Your task to perform on an android device: change the clock display to digital Image 0: 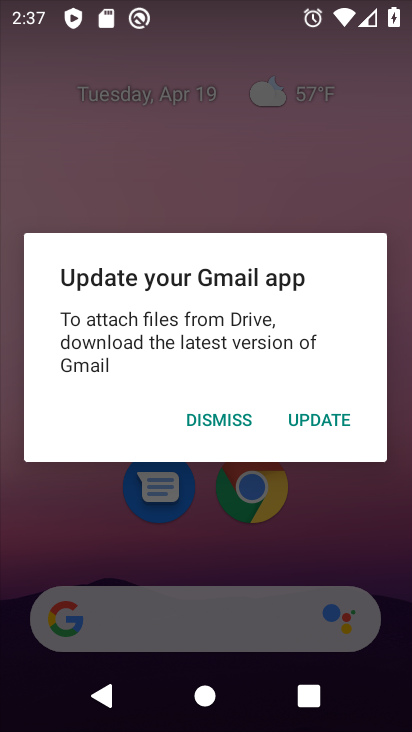
Step 0: press home button
Your task to perform on an android device: change the clock display to digital Image 1: 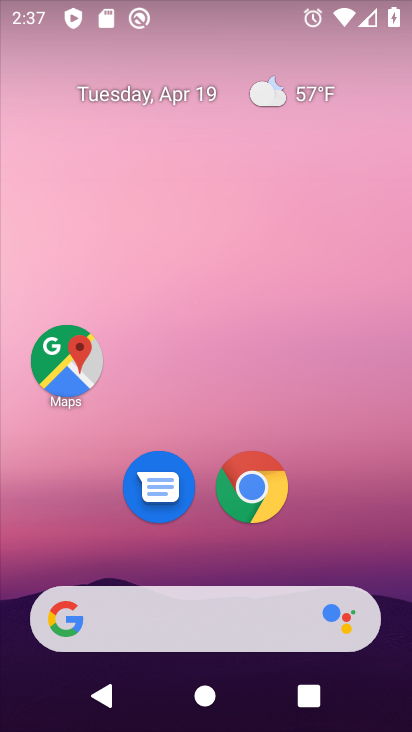
Step 1: drag from (390, 514) to (315, 49)
Your task to perform on an android device: change the clock display to digital Image 2: 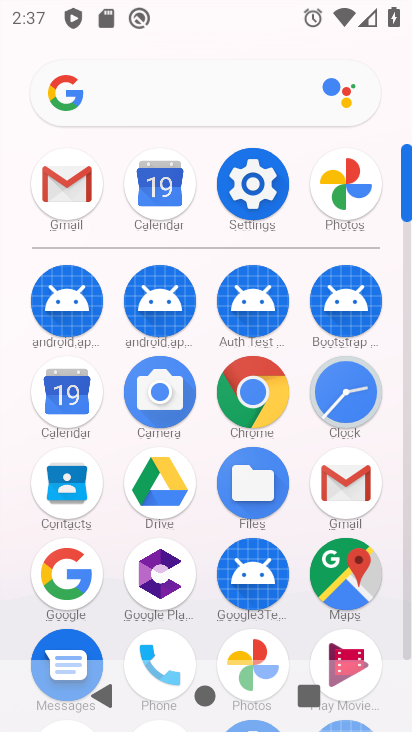
Step 2: click (362, 378)
Your task to perform on an android device: change the clock display to digital Image 3: 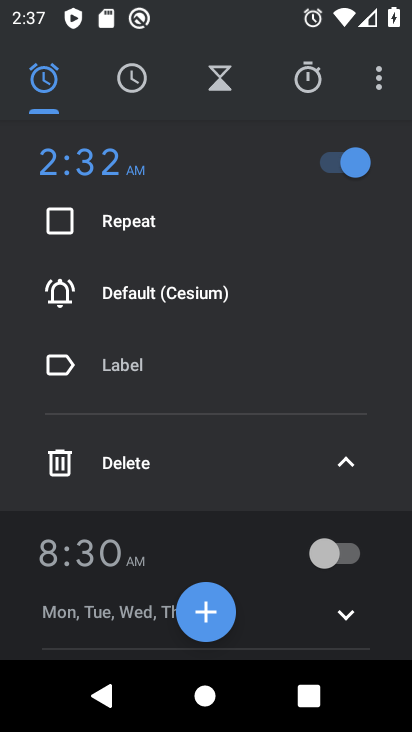
Step 3: click (380, 71)
Your task to perform on an android device: change the clock display to digital Image 4: 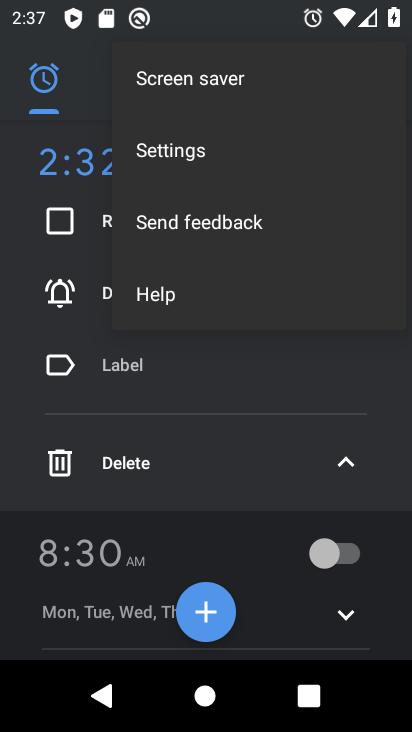
Step 4: click (199, 148)
Your task to perform on an android device: change the clock display to digital Image 5: 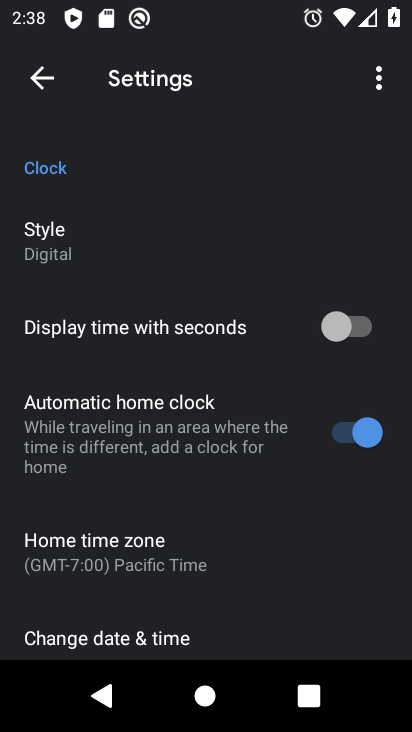
Step 5: click (83, 245)
Your task to perform on an android device: change the clock display to digital Image 6: 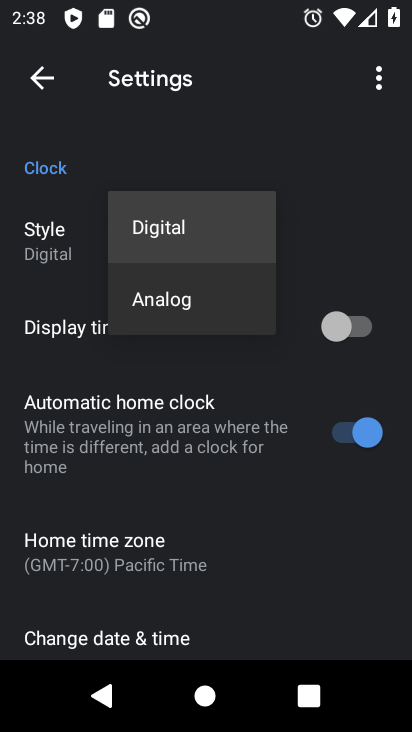
Step 6: task complete